Your task to perform on an android device: check out phone information Image 0: 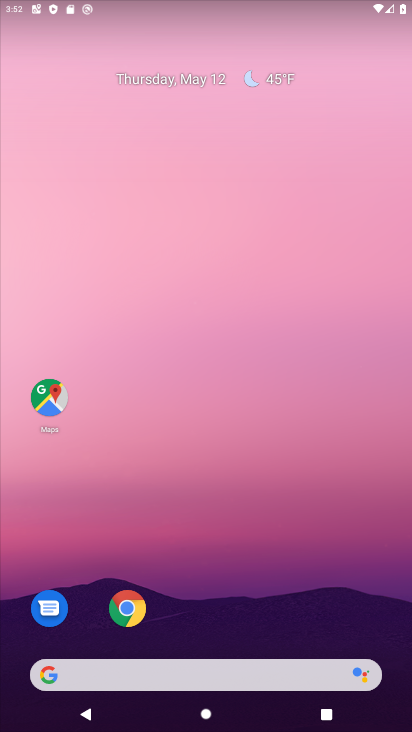
Step 0: drag from (179, 632) to (205, 3)
Your task to perform on an android device: check out phone information Image 1: 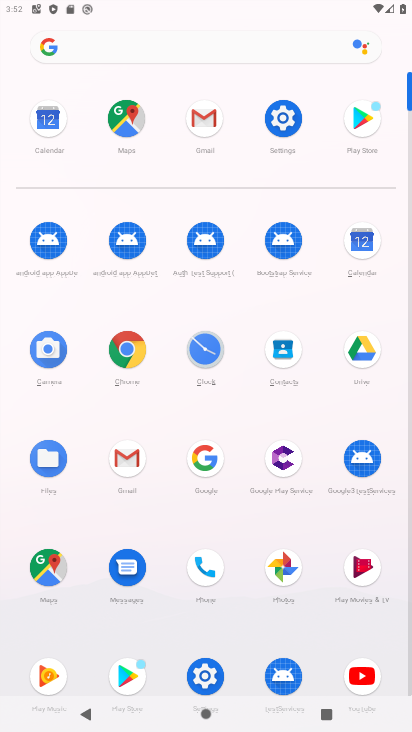
Step 1: click (294, 141)
Your task to perform on an android device: check out phone information Image 2: 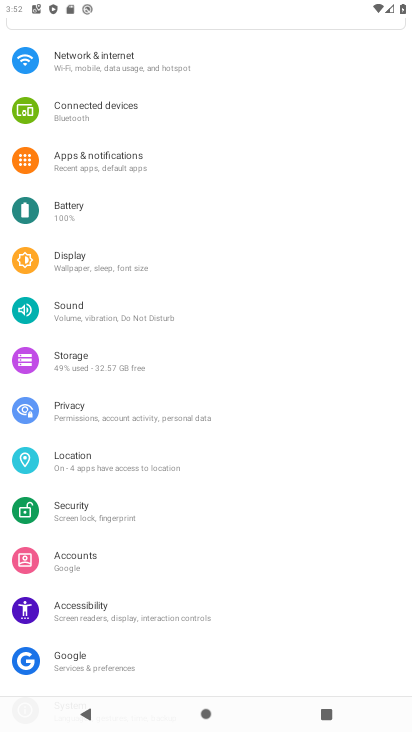
Step 2: drag from (199, 595) to (187, 260)
Your task to perform on an android device: check out phone information Image 3: 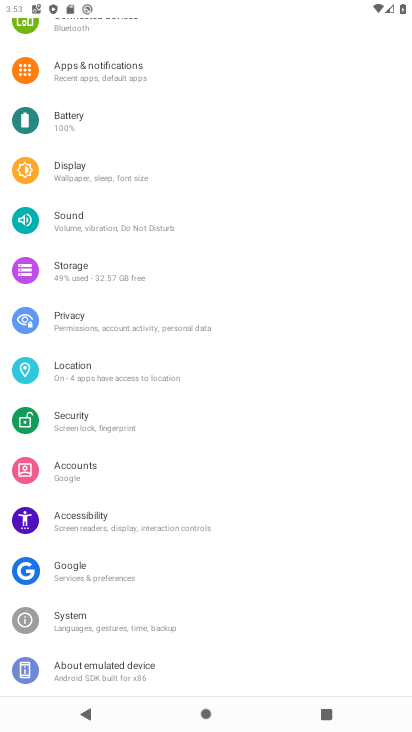
Step 3: click (114, 686)
Your task to perform on an android device: check out phone information Image 4: 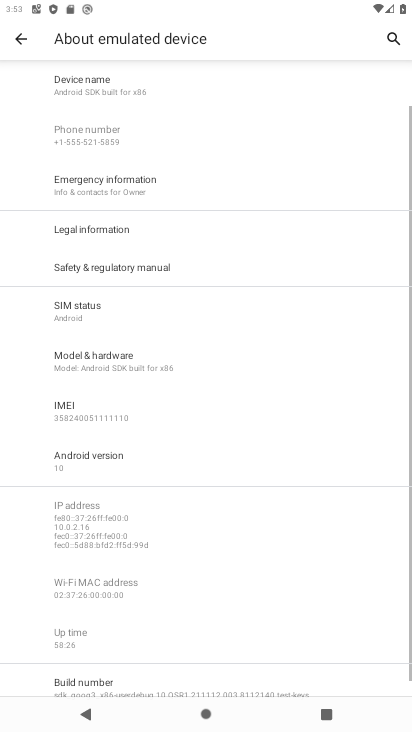
Step 4: task complete